Your task to perform on an android device: turn off airplane mode Image 0: 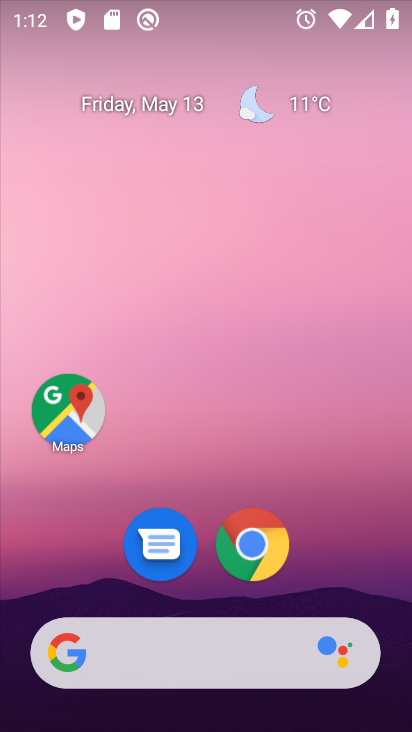
Step 0: drag from (293, 570) to (345, 212)
Your task to perform on an android device: turn off airplane mode Image 1: 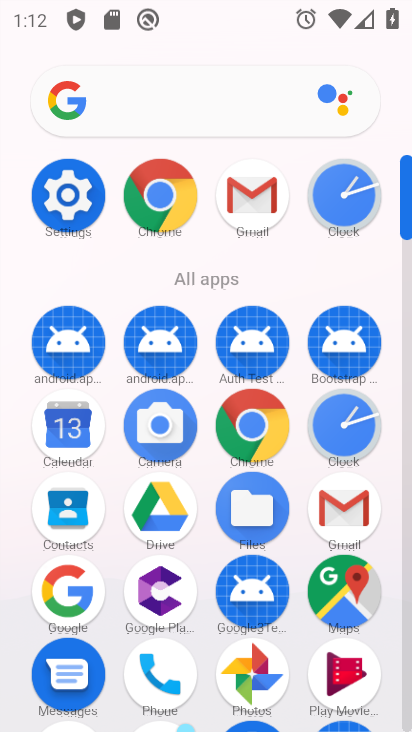
Step 1: click (71, 197)
Your task to perform on an android device: turn off airplane mode Image 2: 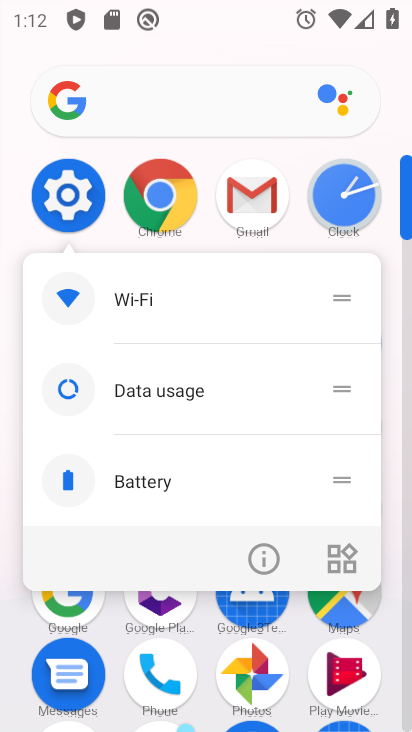
Step 2: click (67, 196)
Your task to perform on an android device: turn off airplane mode Image 3: 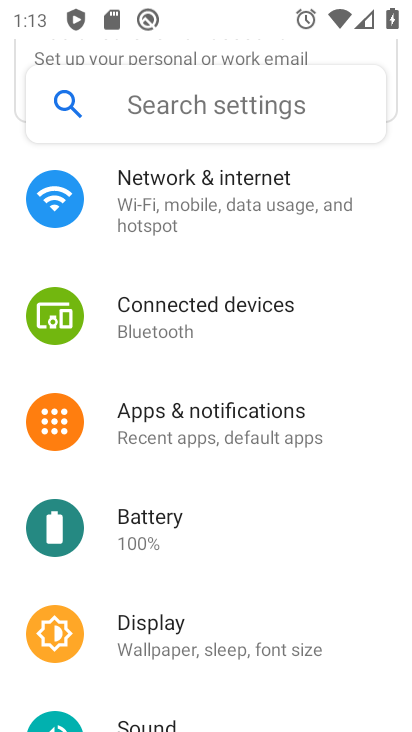
Step 3: click (213, 190)
Your task to perform on an android device: turn off airplane mode Image 4: 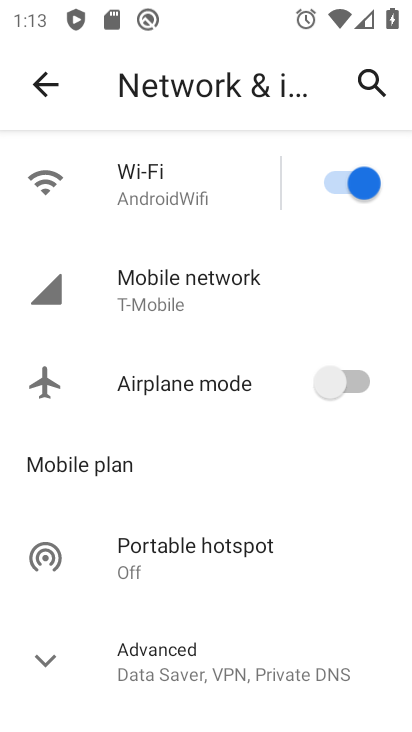
Step 4: task complete